Your task to perform on an android device: add a label to a message in the gmail app Image 0: 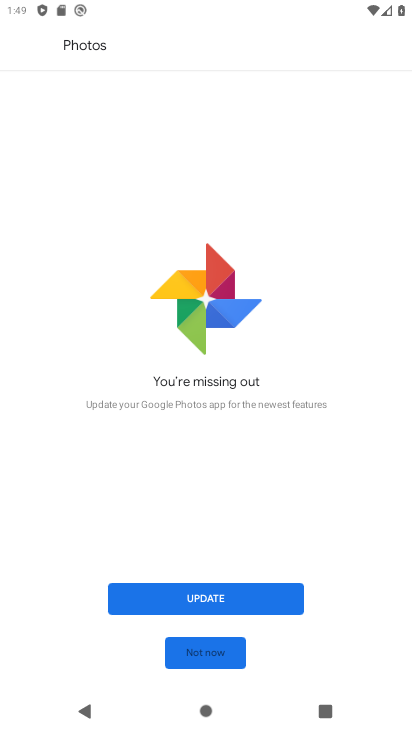
Step 0: press home button
Your task to perform on an android device: add a label to a message in the gmail app Image 1: 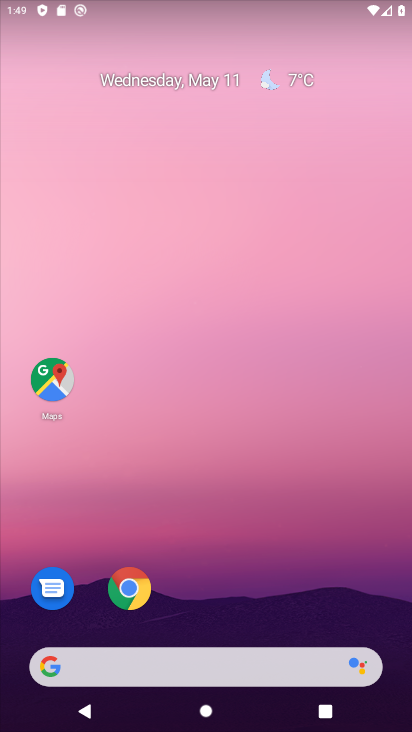
Step 1: drag from (239, 624) to (277, 160)
Your task to perform on an android device: add a label to a message in the gmail app Image 2: 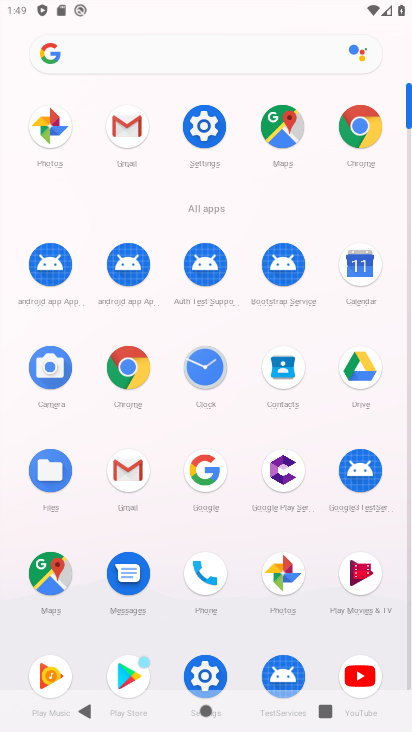
Step 2: click (128, 128)
Your task to perform on an android device: add a label to a message in the gmail app Image 3: 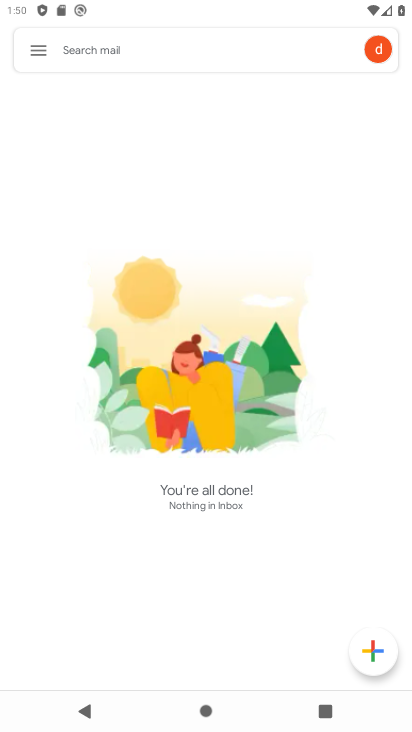
Step 3: task complete